Your task to perform on an android device: Go to CNN.com Image 0: 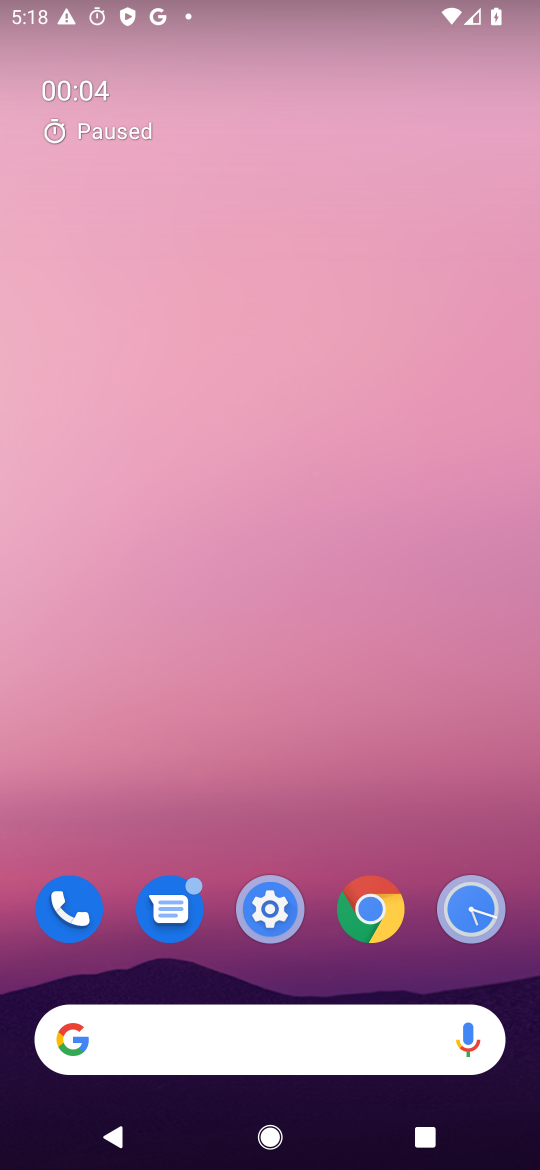
Step 0: click (373, 919)
Your task to perform on an android device: Go to CNN.com Image 1: 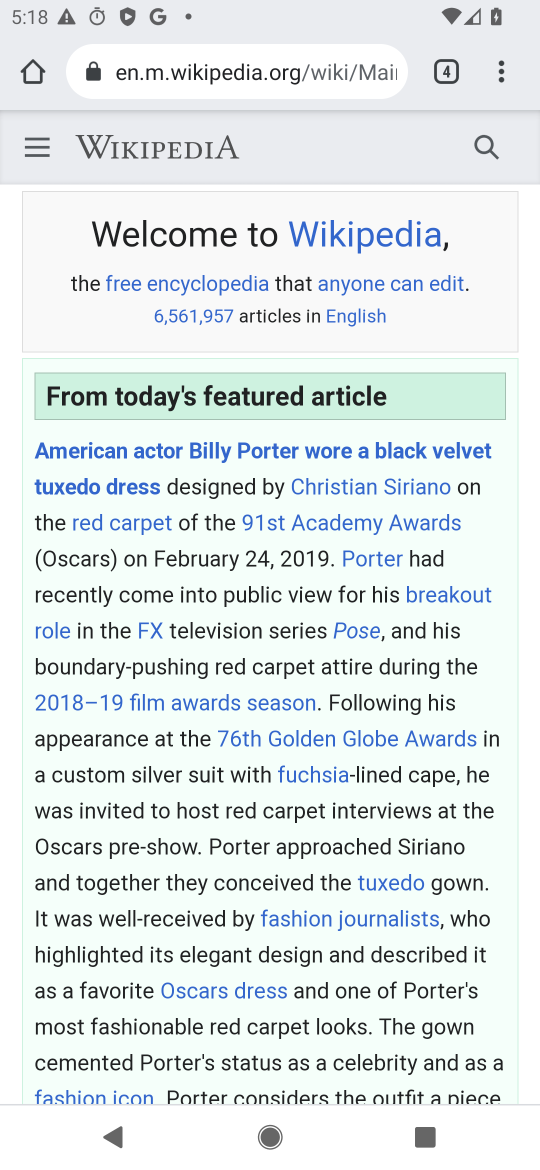
Step 1: drag from (503, 70) to (317, 225)
Your task to perform on an android device: Go to CNN.com Image 2: 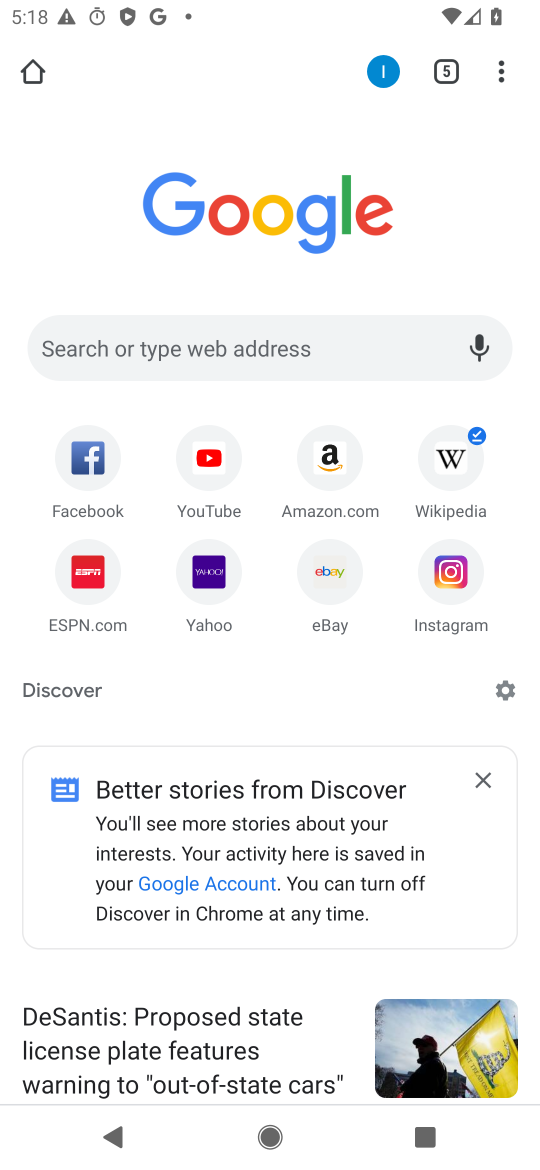
Step 2: click (175, 341)
Your task to perform on an android device: Go to CNN.com Image 3: 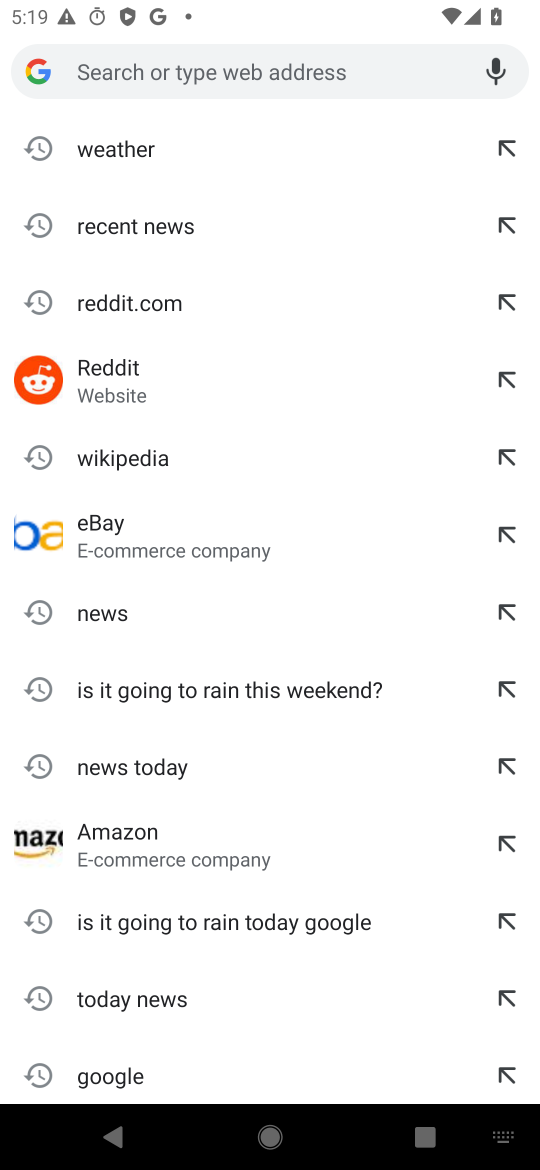
Step 3: type "CNN.com"
Your task to perform on an android device: Go to CNN.com Image 4: 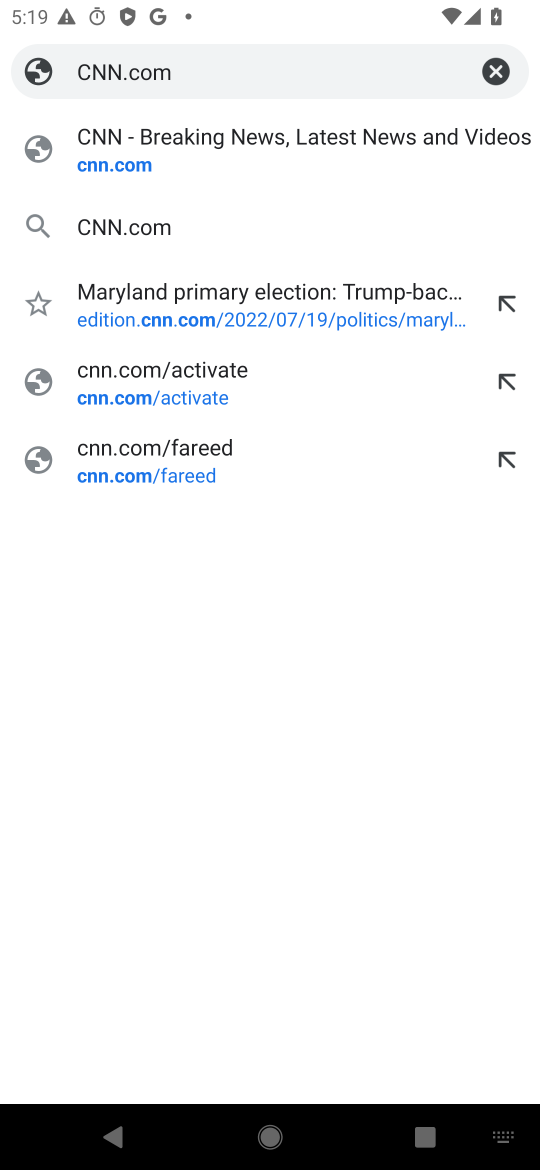
Step 4: click (247, 146)
Your task to perform on an android device: Go to CNN.com Image 5: 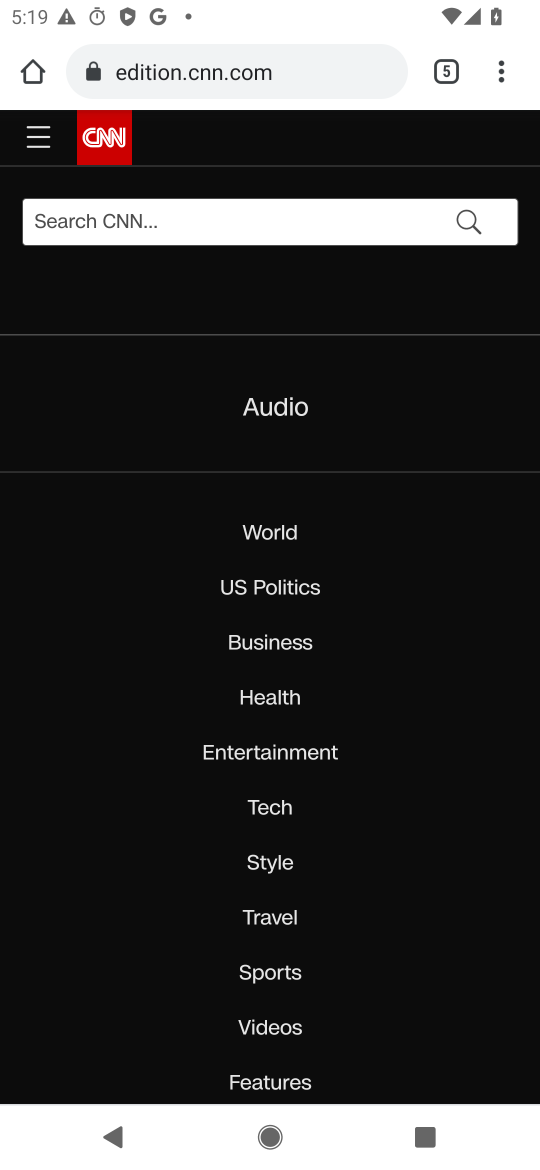
Step 5: task complete